Your task to perform on an android device: turn on showing notifications on the lock screen Image 0: 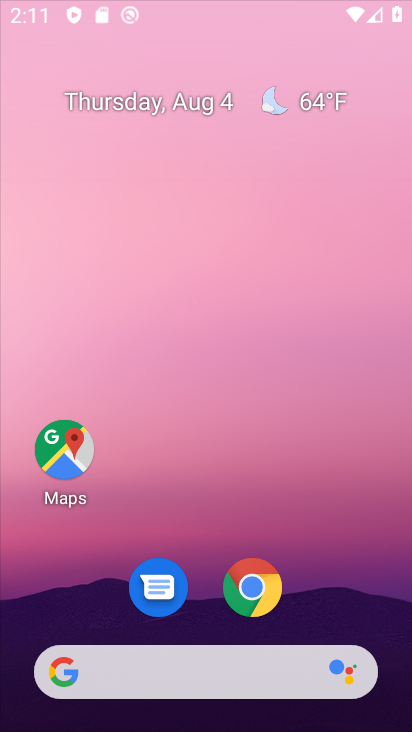
Step 0: click (259, 580)
Your task to perform on an android device: turn on showing notifications on the lock screen Image 1: 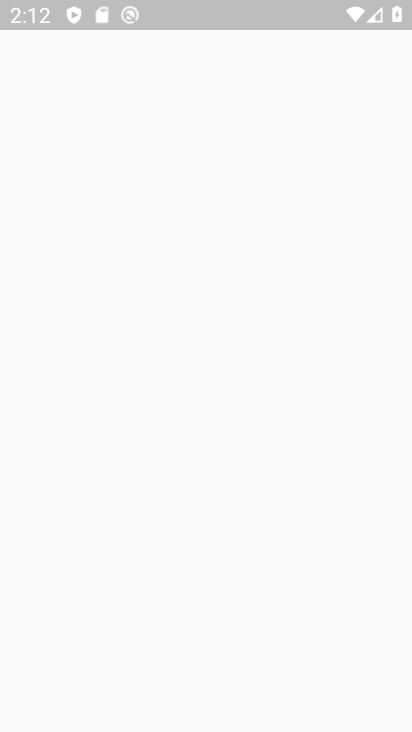
Step 1: press home button
Your task to perform on an android device: turn on showing notifications on the lock screen Image 2: 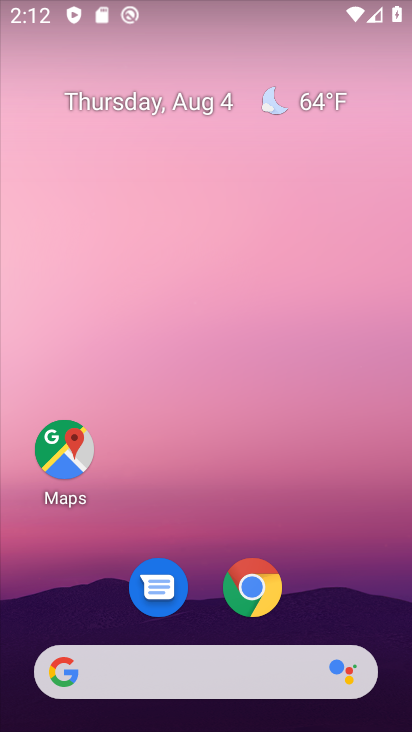
Step 2: drag from (213, 511) to (204, 22)
Your task to perform on an android device: turn on showing notifications on the lock screen Image 3: 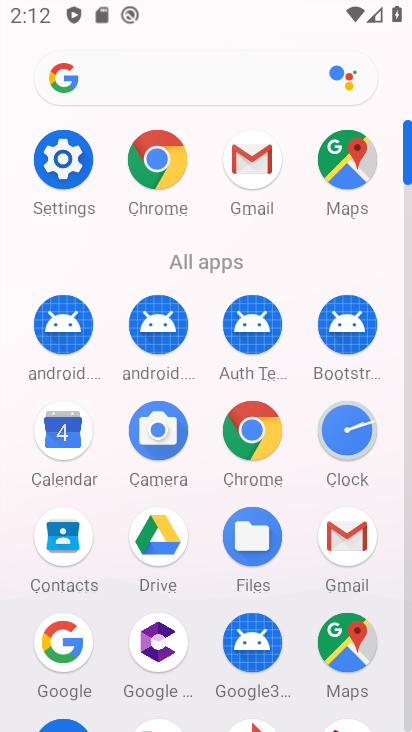
Step 3: click (59, 160)
Your task to perform on an android device: turn on showing notifications on the lock screen Image 4: 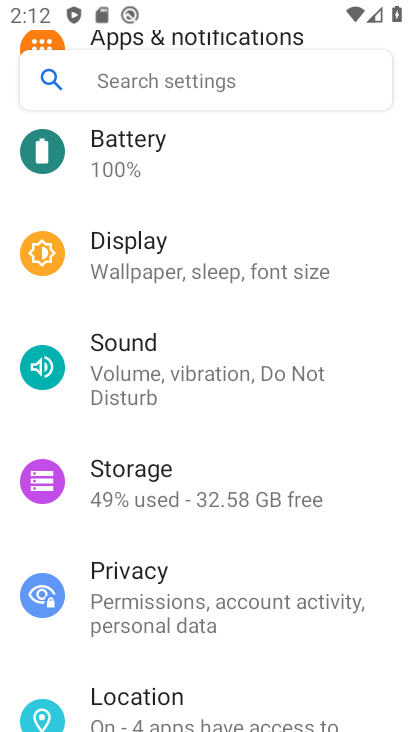
Step 4: drag from (214, 201) to (192, 650)
Your task to perform on an android device: turn on showing notifications on the lock screen Image 5: 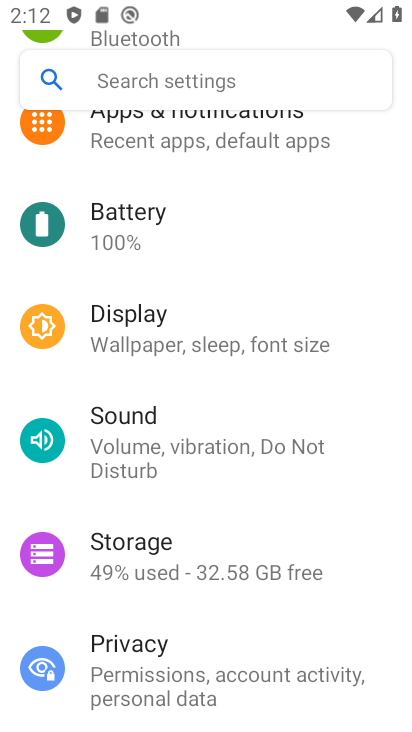
Step 5: click (198, 122)
Your task to perform on an android device: turn on showing notifications on the lock screen Image 6: 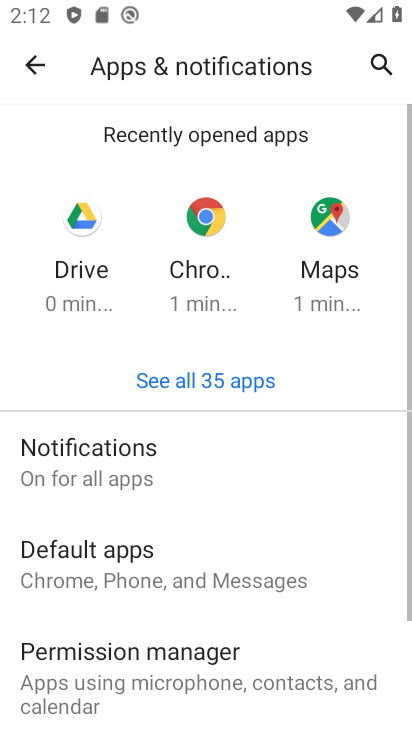
Step 6: click (104, 444)
Your task to perform on an android device: turn on showing notifications on the lock screen Image 7: 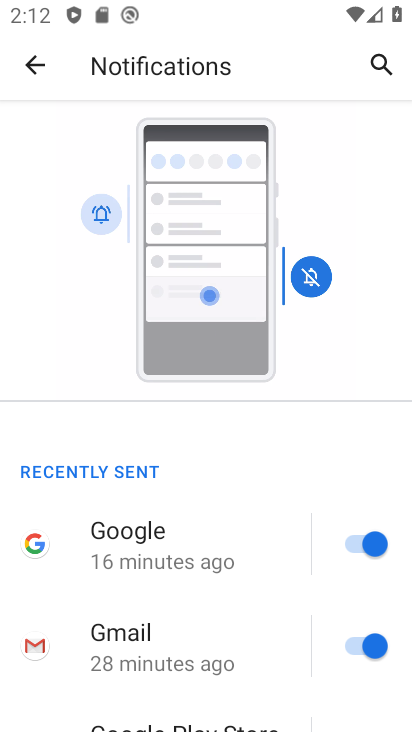
Step 7: drag from (250, 609) to (301, 226)
Your task to perform on an android device: turn on showing notifications on the lock screen Image 8: 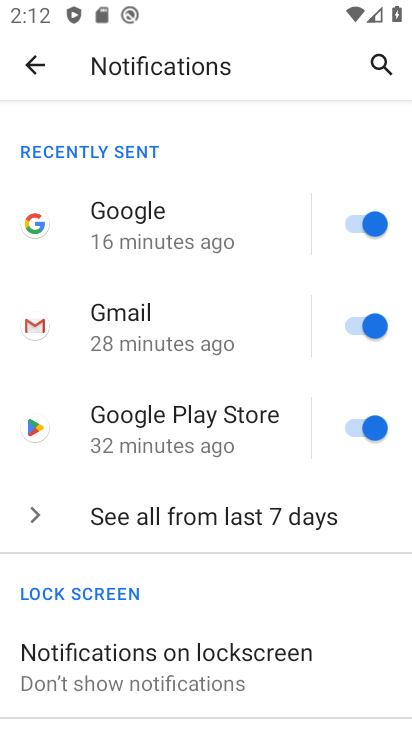
Step 8: click (182, 653)
Your task to perform on an android device: turn on showing notifications on the lock screen Image 9: 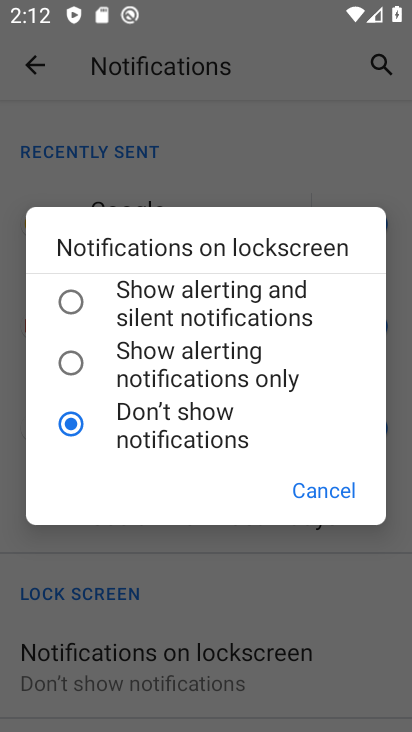
Step 9: click (73, 301)
Your task to perform on an android device: turn on showing notifications on the lock screen Image 10: 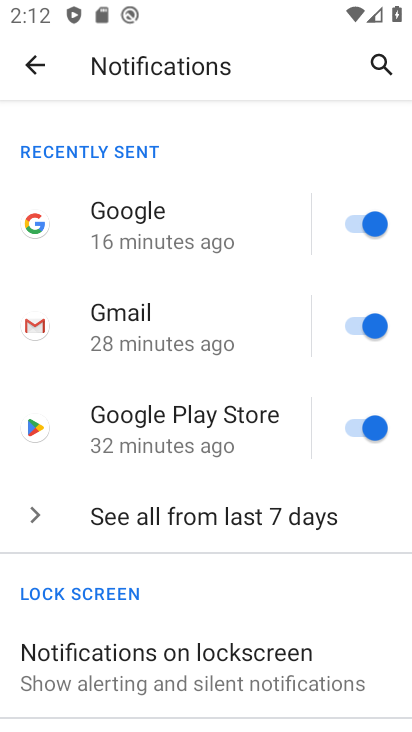
Step 10: task complete